Your task to perform on an android device: turn notification dots off Image 0: 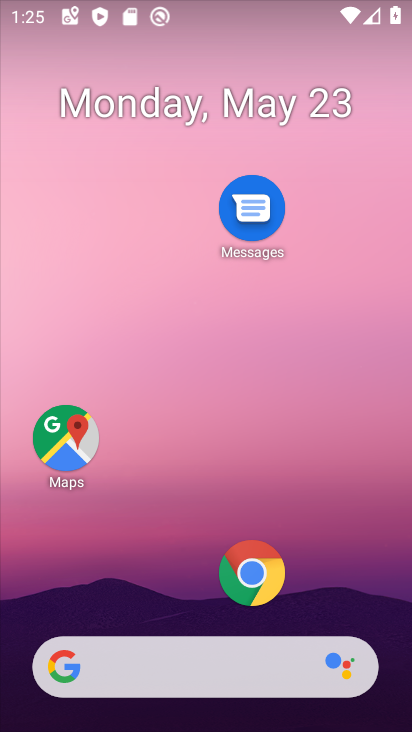
Step 0: drag from (171, 518) to (177, 189)
Your task to perform on an android device: turn notification dots off Image 1: 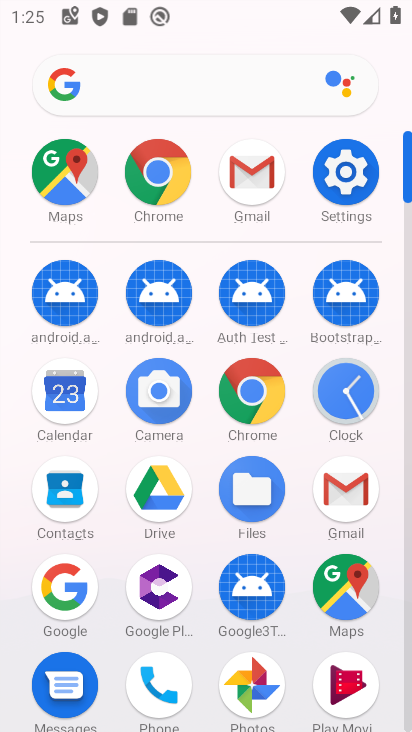
Step 1: click (349, 199)
Your task to perform on an android device: turn notification dots off Image 2: 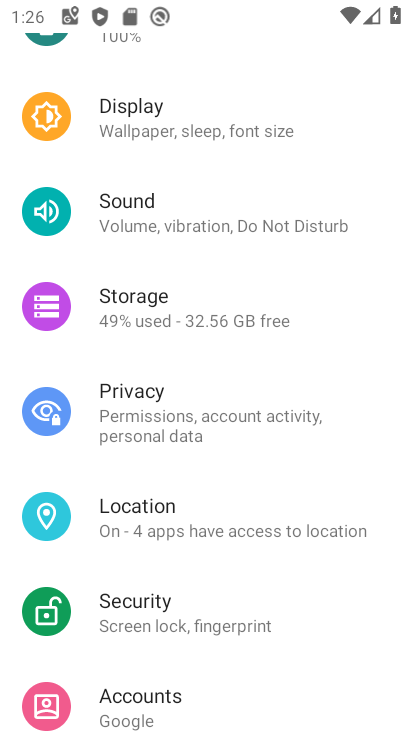
Step 2: drag from (269, 478) to (265, 119)
Your task to perform on an android device: turn notification dots off Image 3: 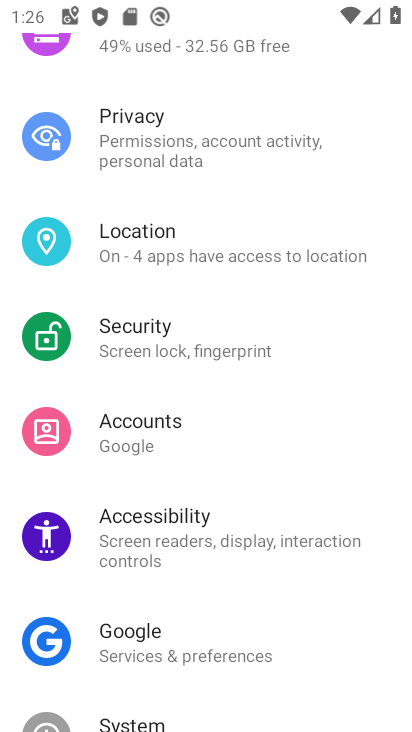
Step 3: drag from (248, 590) to (213, 297)
Your task to perform on an android device: turn notification dots off Image 4: 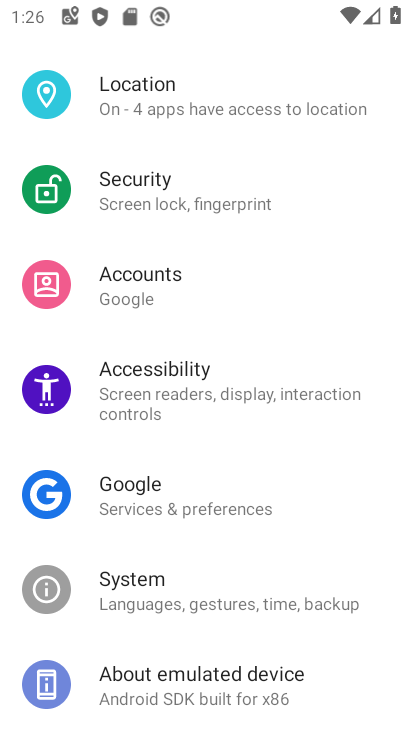
Step 4: drag from (268, 528) to (245, 225)
Your task to perform on an android device: turn notification dots off Image 5: 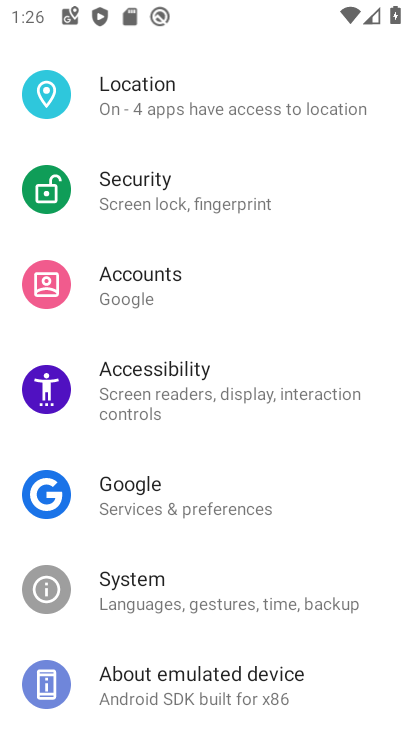
Step 5: drag from (278, 257) to (265, 591)
Your task to perform on an android device: turn notification dots off Image 6: 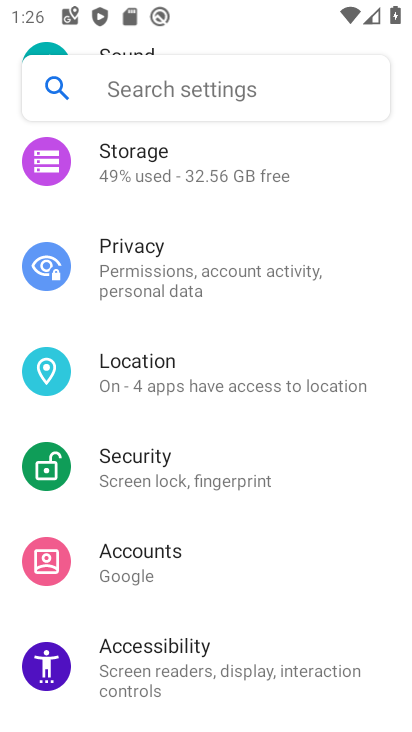
Step 6: drag from (230, 221) to (241, 495)
Your task to perform on an android device: turn notification dots off Image 7: 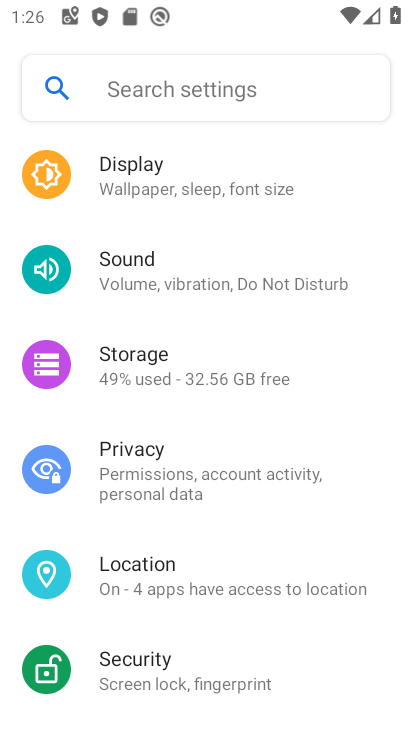
Step 7: drag from (264, 218) to (252, 445)
Your task to perform on an android device: turn notification dots off Image 8: 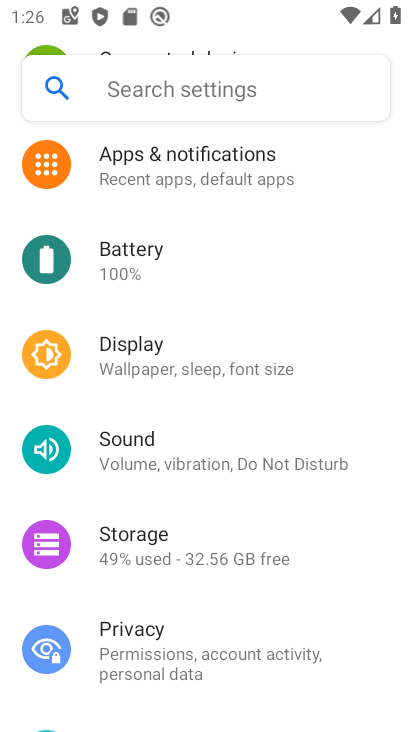
Step 8: click (221, 166)
Your task to perform on an android device: turn notification dots off Image 9: 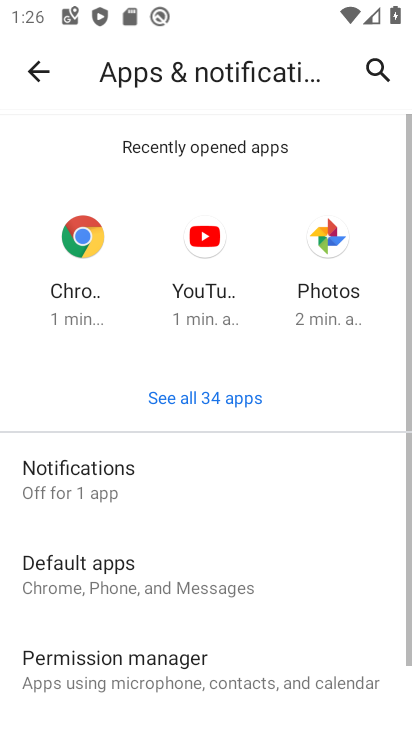
Step 9: drag from (350, 561) to (347, 275)
Your task to perform on an android device: turn notification dots off Image 10: 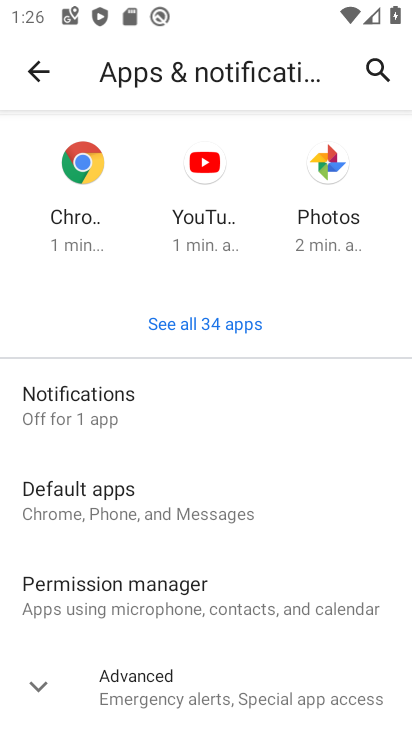
Step 10: click (53, 691)
Your task to perform on an android device: turn notification dots off Image 11: 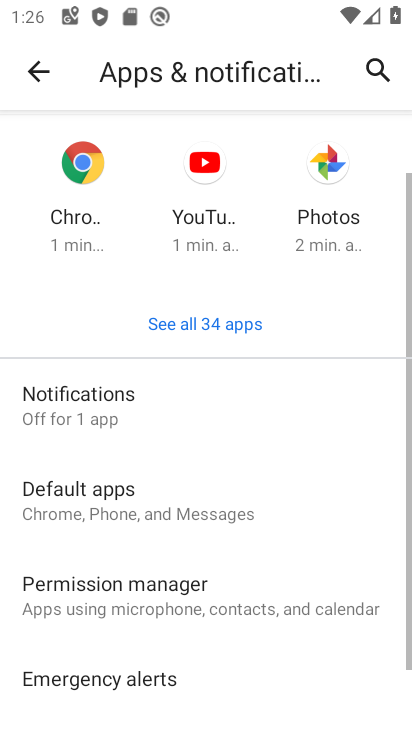
Step 11: drag from (231, 524) to (282, 204)
Your task to perform on an android device: turn notification dots off Image 12: 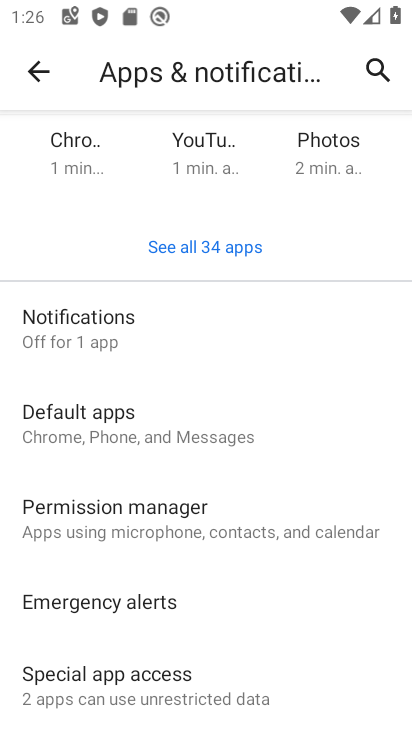
Step 12: drag from (310, 606) to (321, 353)
Your task to perform on an android device: turn notification dots off Image 13: 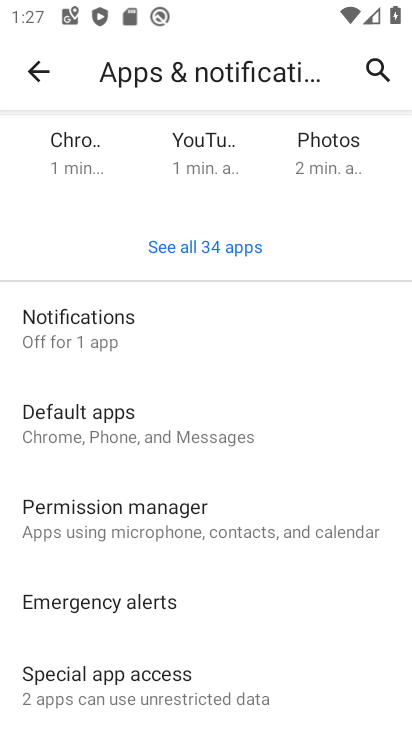
Step 13: drag from (326, 610) to (298, 303)
Your task to perform on an android device: turn notification dots off Image 14: 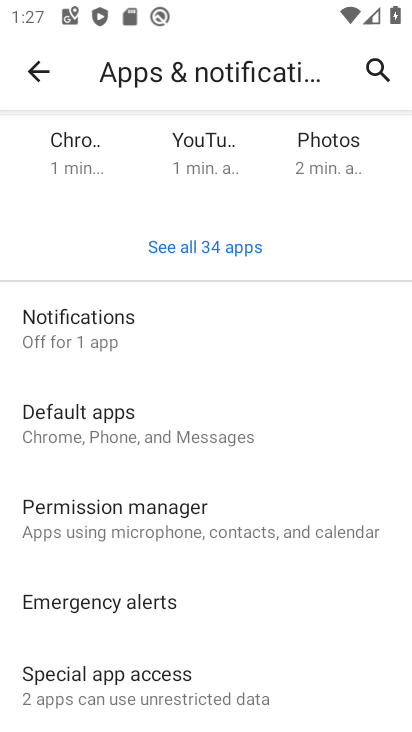
Step 14: drag from (307, 332) to (292, 613)
Your task to perform on an android device: turn notification dots off Image 15: 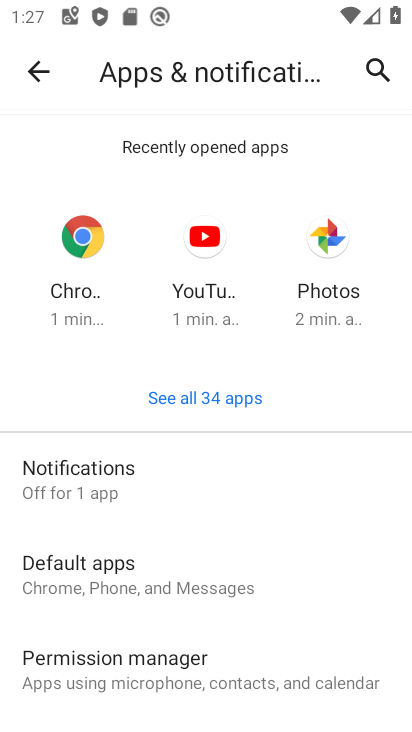
Step 15: click (134, 480)
Your task to perform on an android device: turn notification dots off Image 16: 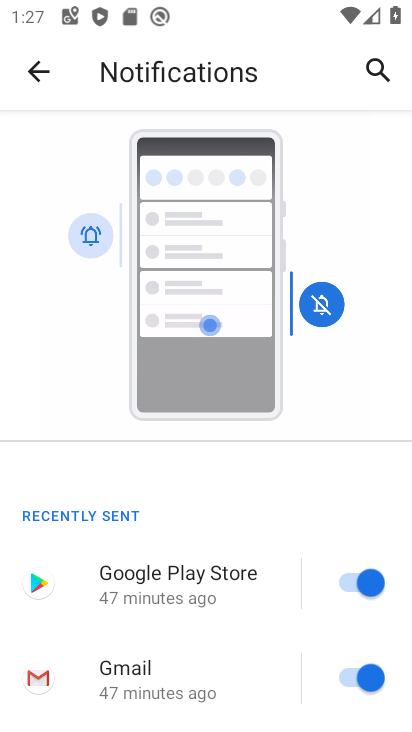
Step 16: drag from (278, 525) to (267, 266)
Your task to perform on an android device: turn notification dots off Image 17: 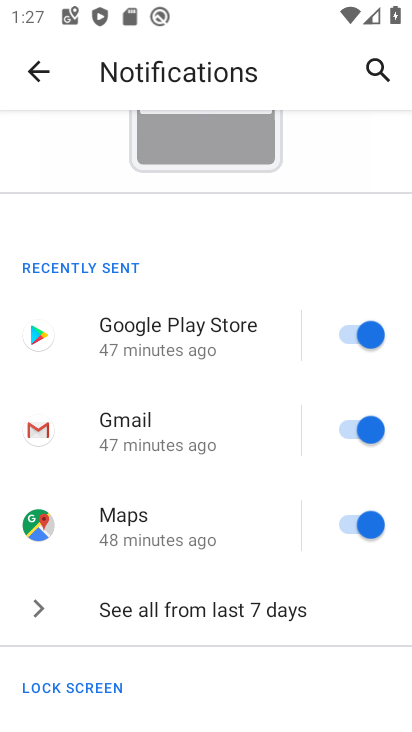
Step 17: drag from (228, 514) to (239, 219)
Your task to perform on an android device: turn notification dots off Image 18: 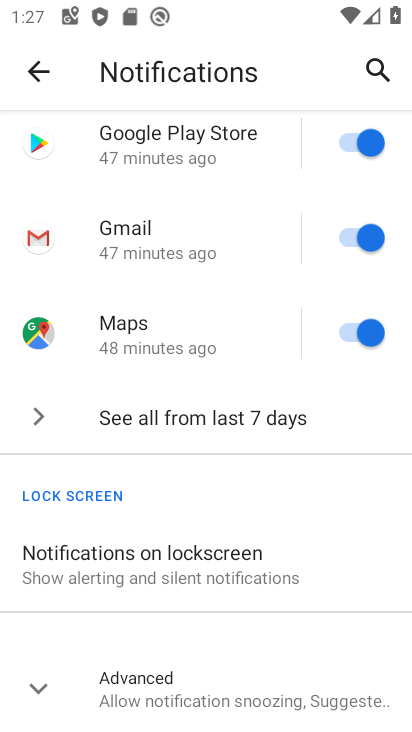
Step 18: drag from (248, 638) to (242, 352)
Your task to perform on an android device: turn notification dots off Image 19: 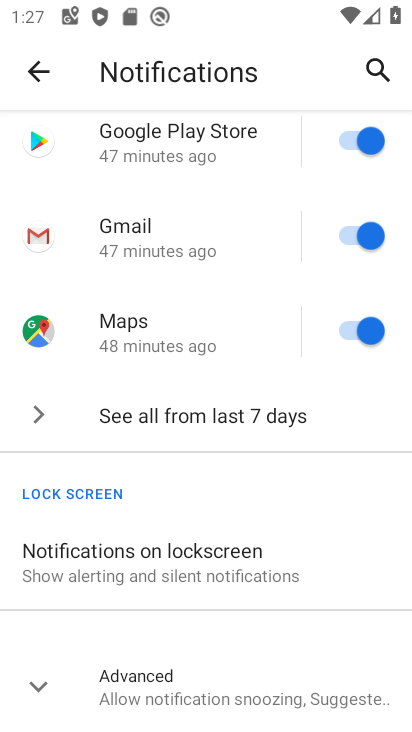
Step 19: click (163, 702)
Your task to perform on an android device: turn notification dots off Image 20: 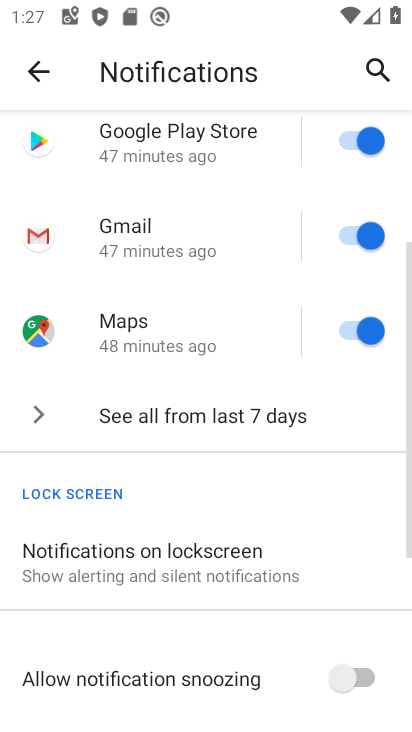
Step 20: drag from (168, 691) to (227, 318)
Your task to perform on an android device: turn notification dots off Image 21: 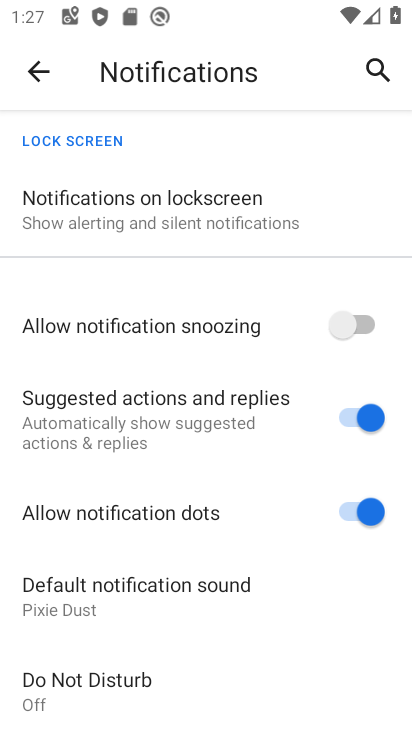
Step 21: click (377, 519)
Your task to perform on an android device: turn notification dots off Image 22: 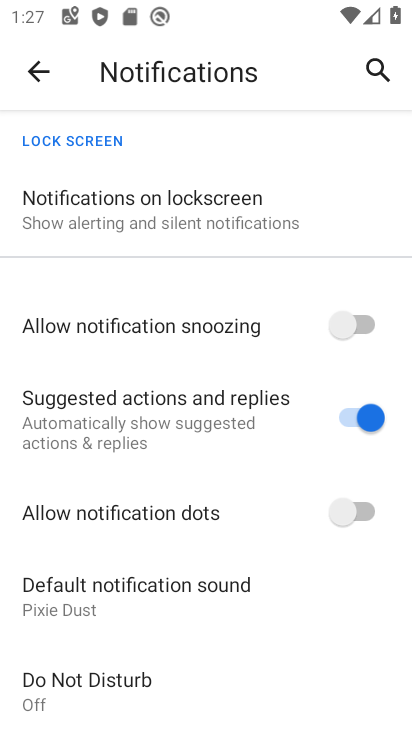
Step 22: task complete